Your task to perform on an android device: Open Google Chrome and open the bookmarks view Image 0: 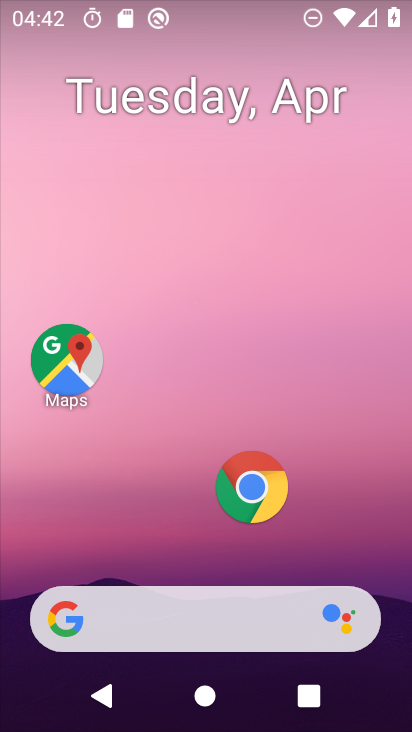
Step 0: click (262, 484)
Your task to perform on an android device: Open Google Chrome and open the bookmarks view Image 1: 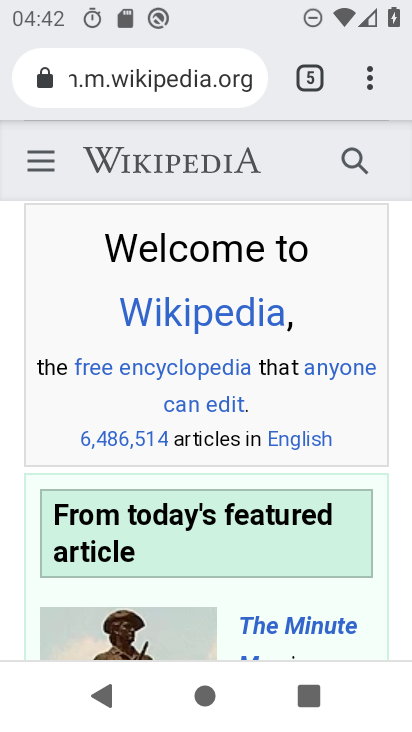
Step 1: task complete